Your task to perform on an android device: Toggle the flashlight Image 0: 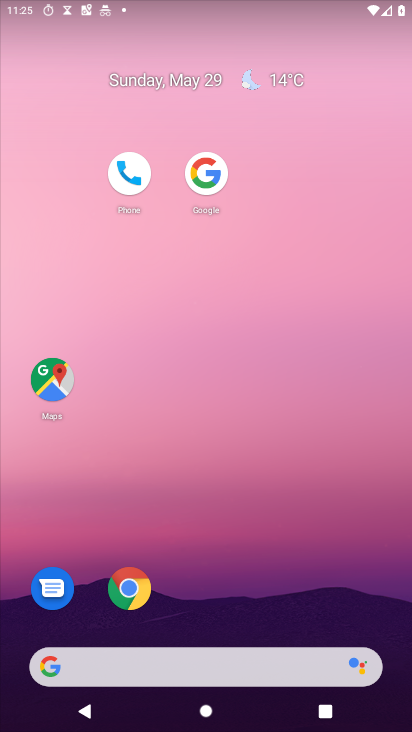
Step 0: drag from (250, 687) to (244, 147)
Your task to perform on an android device: Toggle the flashlight Image 1: 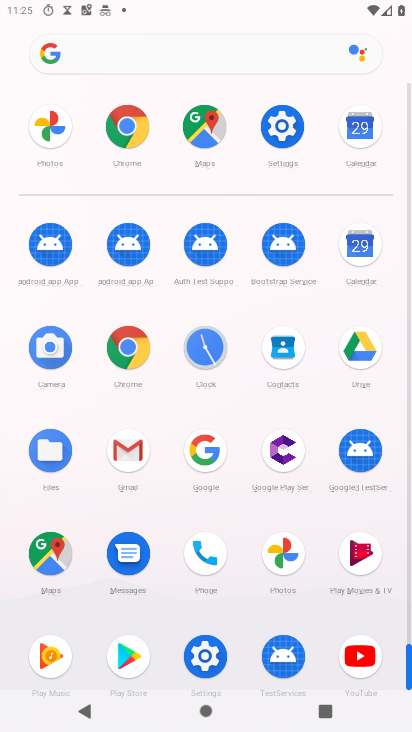
Step 1: task complete